Your task to perform on an android device: show emergency info Image 0: 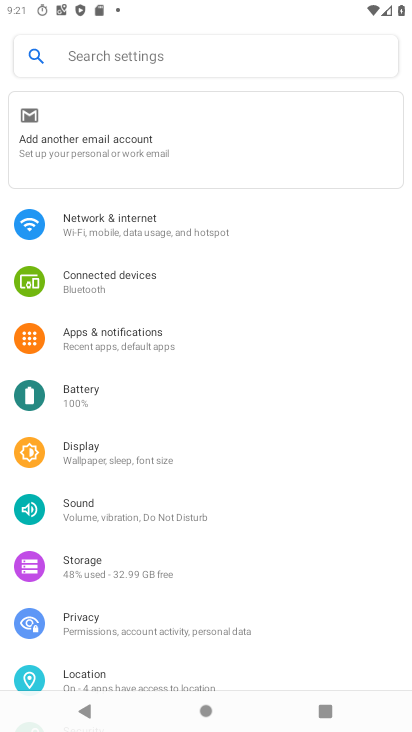
Step 0: drag from (228, 569) to (250, 75)
Your task to perform on an android device: show emergency info Image 1: 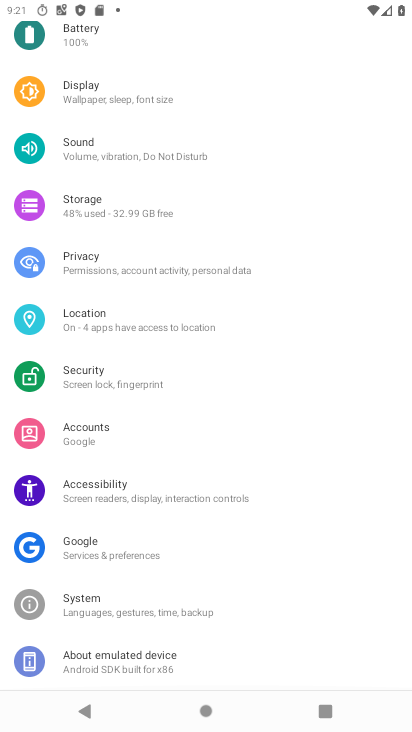
Step 1: drag from (267, 598) to (255, 128)
Your task to perform on an android device: show emergency info Image 2: 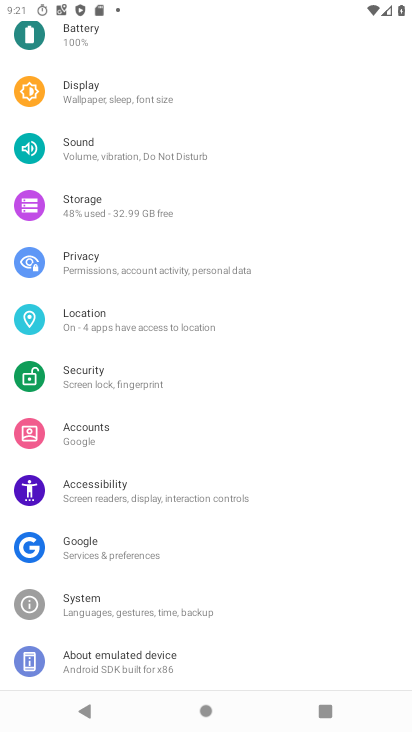
Step 2: click (162, 650)
Your task to perform on an android device: show emergency info Image 3: 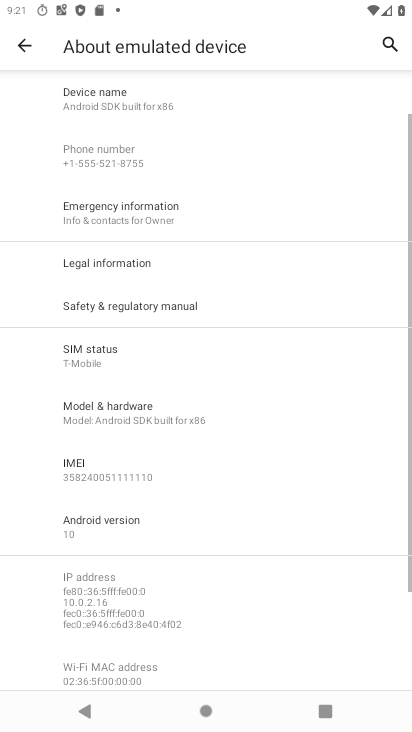
Step 3: click (139, 203)
Your task to perform on an android device: show emergency info Image 4: 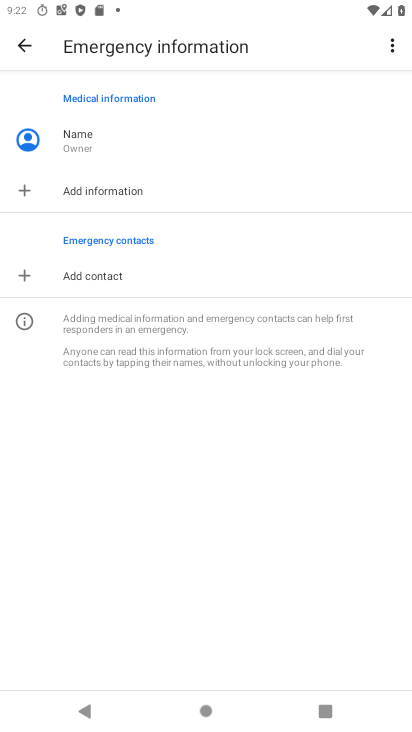
Step 4: task complete